Your task to perform on an android device: Go to Maps Image 0: 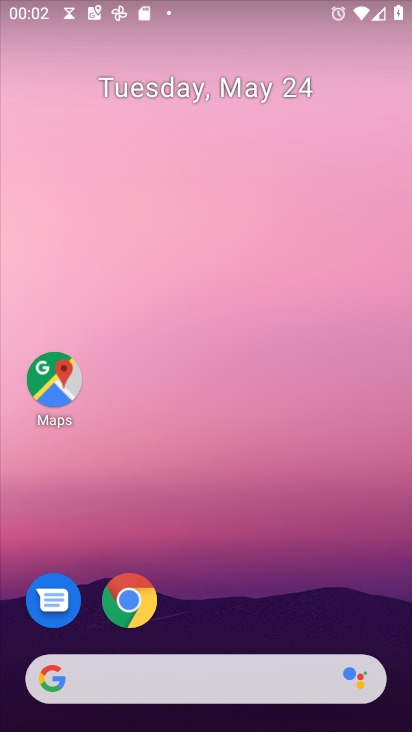
Step 0: drag from (218, 724) to (230, 112)
Your task to perform on an android device: Go to Maps Image 1: 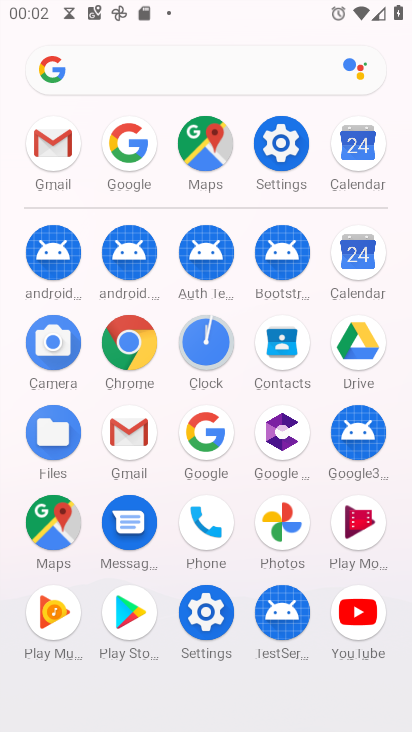
Step 1: click (51, 520)
Your task to perform on an android device: Go to Maps Image 2: 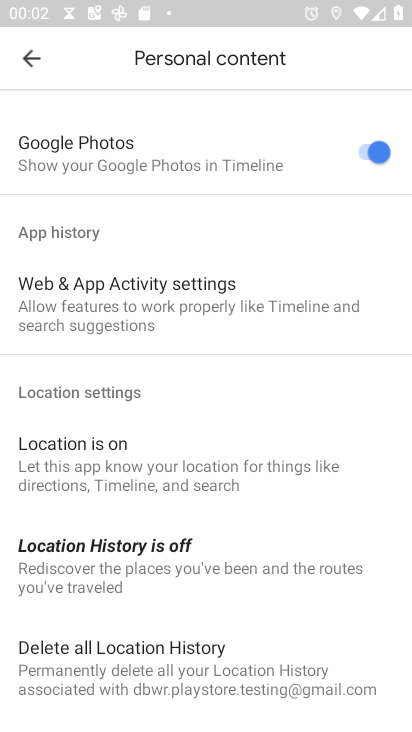
Step 2: click (31, 62)
Your task to perform on an android device: Go to Maps Image 3: 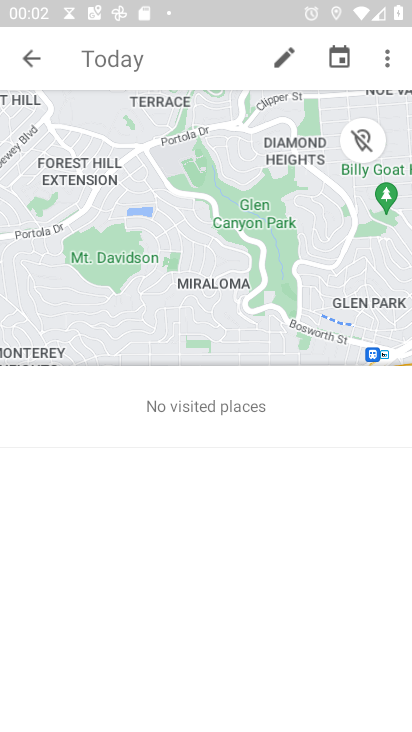
Step 3: task complete